Your task to perform on an android device: check battery use Image 0: 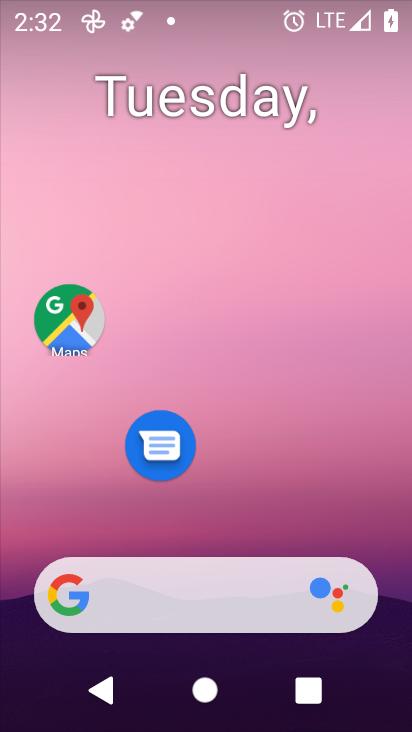
Step 0: drag from (305, 486) to (196, 72)
Your task to perform on an android device: check battery use Image 1: 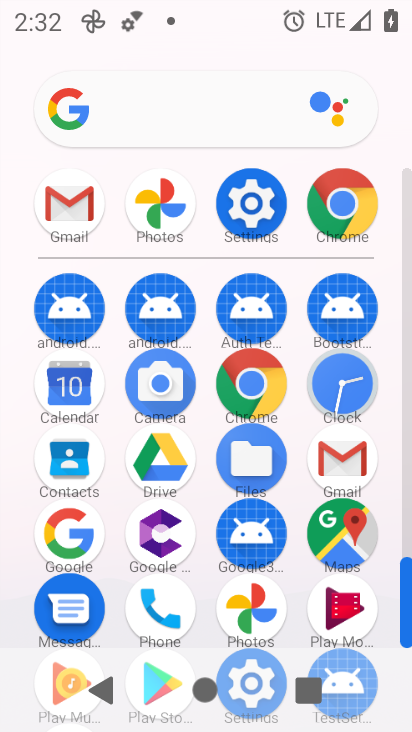
Step 1: click (242, 196)
Your task to perform on an android device: check battery use Image 2: 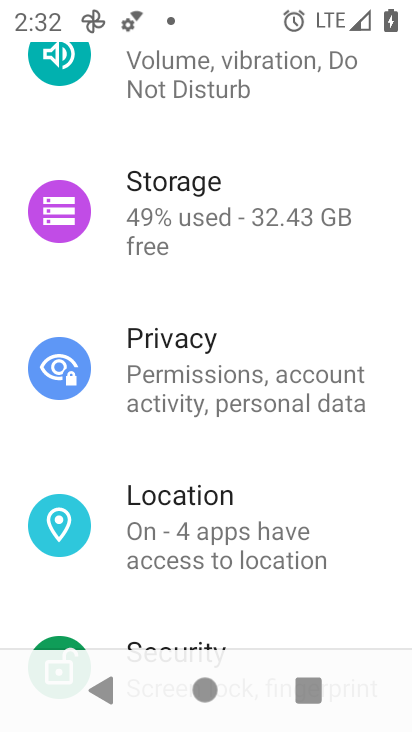
Step 2: drag from (212, 140) to (210, 719)
Your task to perform on an android device: check battery use Image 3: 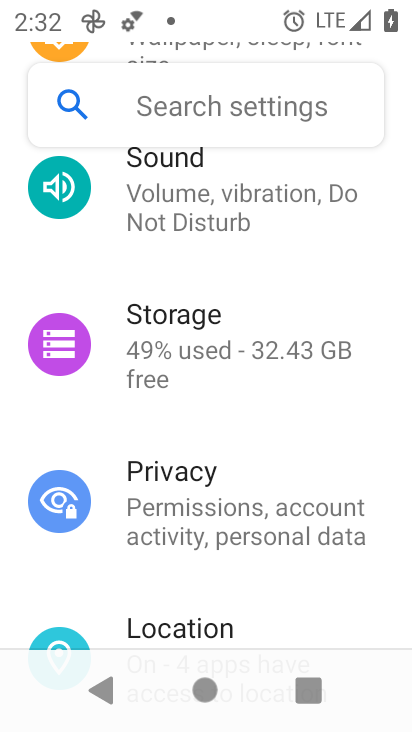
Step 3: drag from (181, 255) to (200, 634)
Your task to perform on an android device: check battery use Image 4: 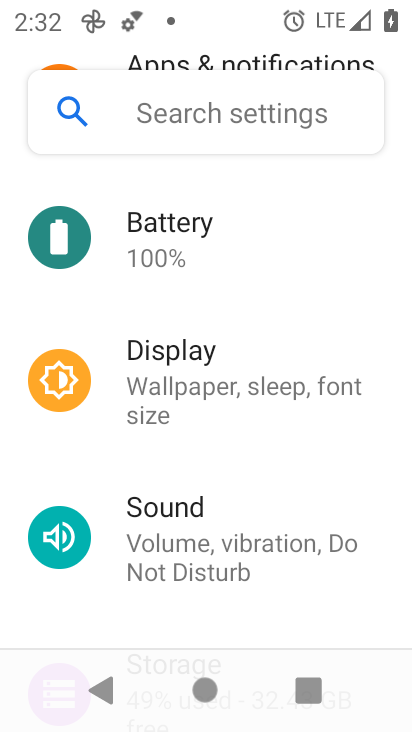
Step 4: click (154, 225)
Your task to perform on an android device: check battery use Image 5: 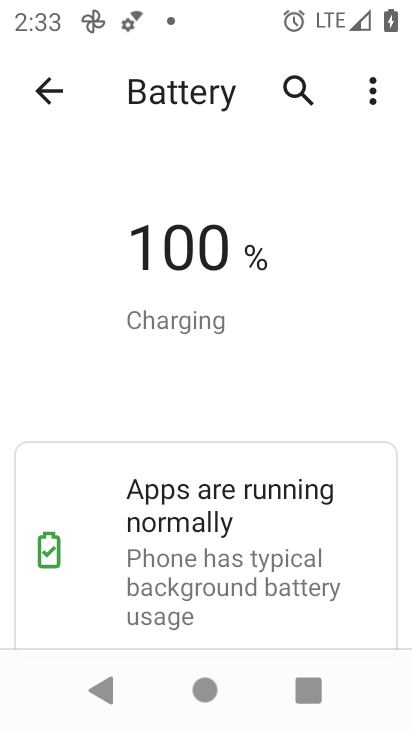
Step 5: task complete